Your task to perform on an android device: What's on my calendar tomorrow? Image 0: 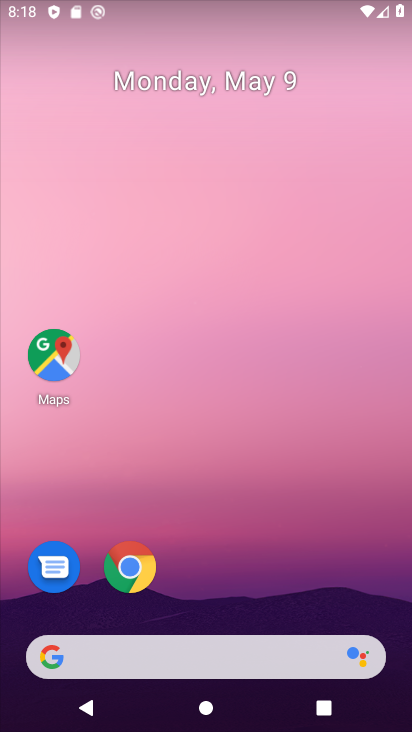
Step 0: drag from (347, 585) to (320, 103)
Your task to perform on an android device: What's on my calendar tomorrow? Image 1: 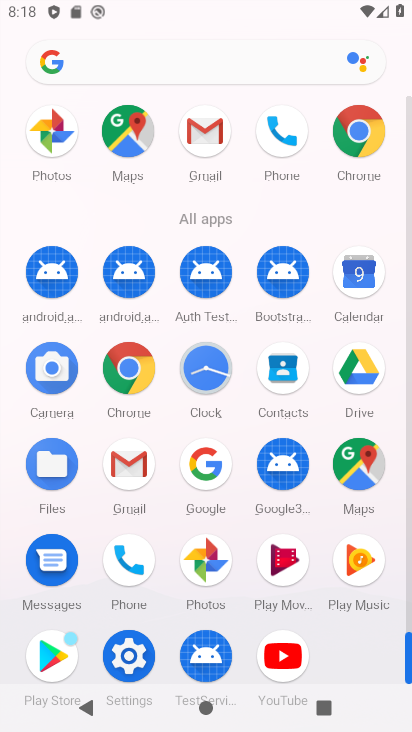
Step 1: click (375, 284)
Your task to perform on an android device: What's on my calendar tomorrow? Image 2: 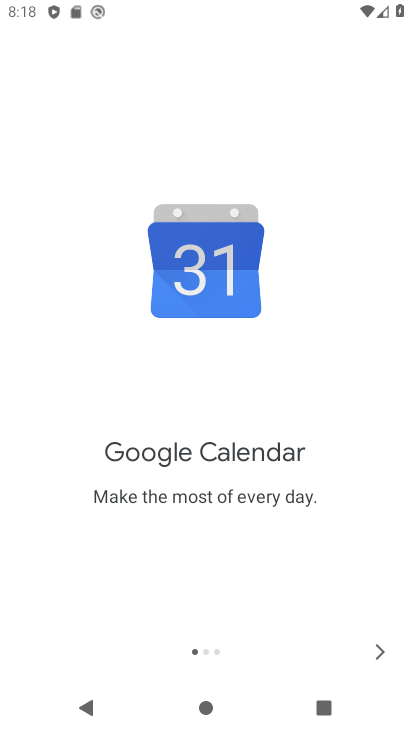
Step 2: click (378, 660)
Your task to perform on an android device: What's on my calendar tomorrow? Image 3: 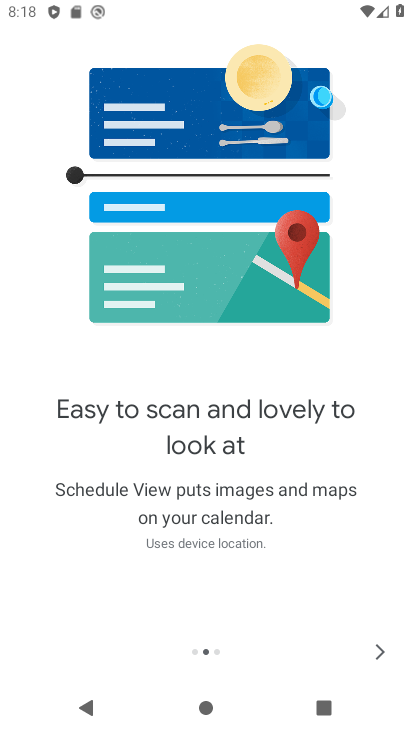
Step 3: click (382, 656)
Your task to perform on an android device: What's on my calendar tomorrow? Image 4: 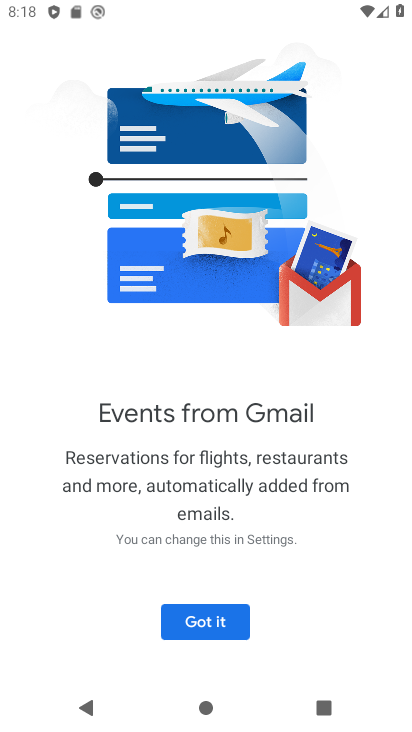
Step 4: click (191, 631)
Your task to perform on an android device: What's on my calendar tomorrow? Image 5: 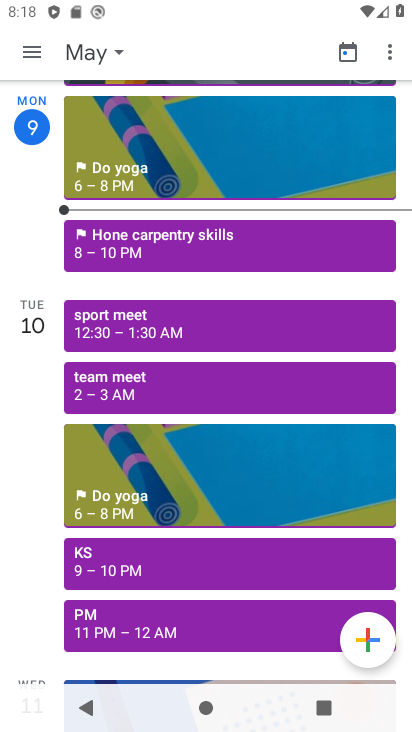
Step 5: click (92, 57)
Your task to perform on an android device: What's on my calendar tomorrow? Image 6: 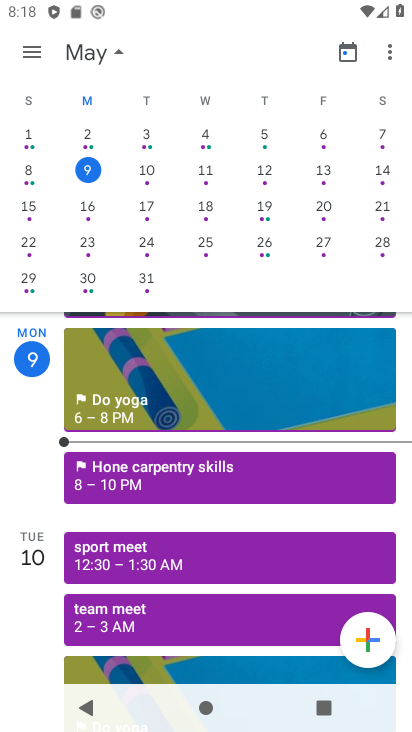
Step 6: click (151, 173)
Your task to perform on an android device: What's on my calendar tomorrow? Image 7: 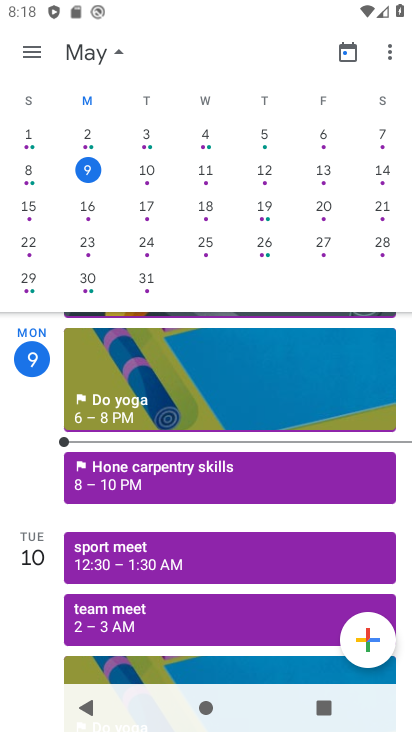
Step 7: click (144, 171)
Your task to perform on an android device: What's on my calendar tomorrow? Image 8: 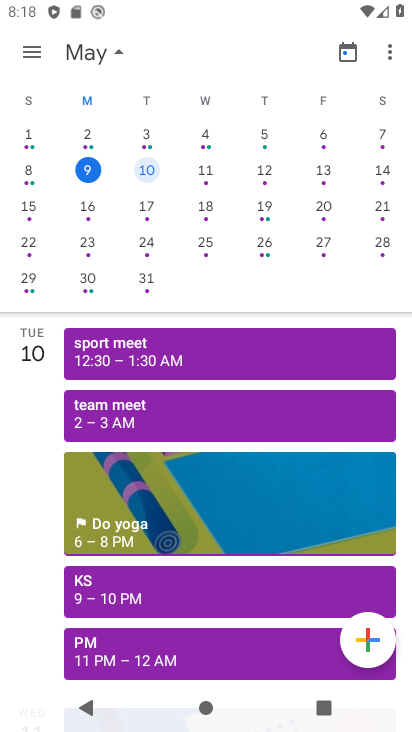
Step 8: task complete